Your task to perform on an android device: turn off notifications in google photos Image 0: 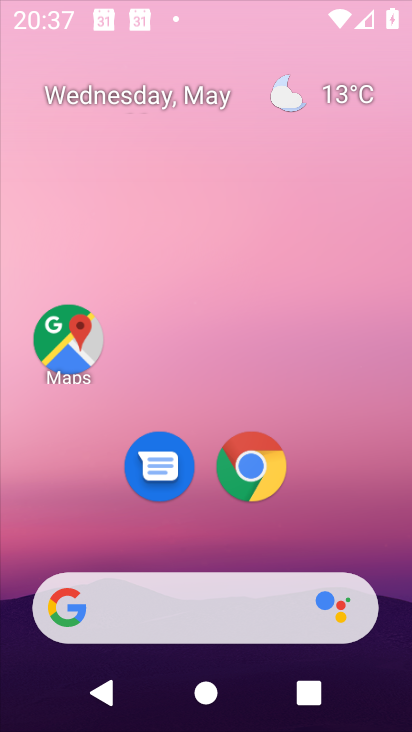
Step 0: drag from (209, 543) to (206, 55)
Your task to perform on an android device: turn off notifications in google photos Image 1: 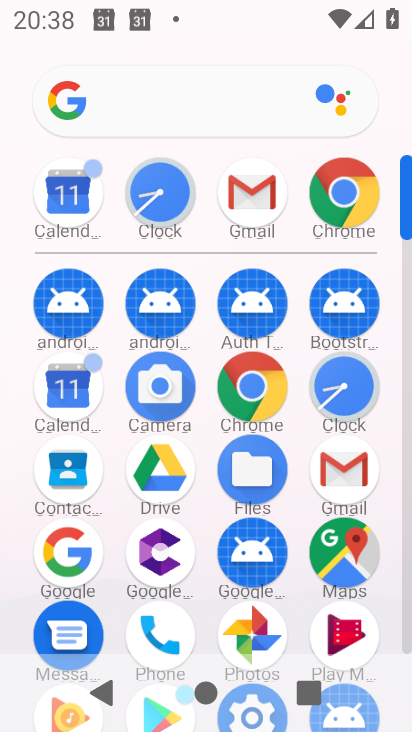
Step 1: click (247, 622)
Your task to perform on an android device: turn off notifications in google photos Image 2: 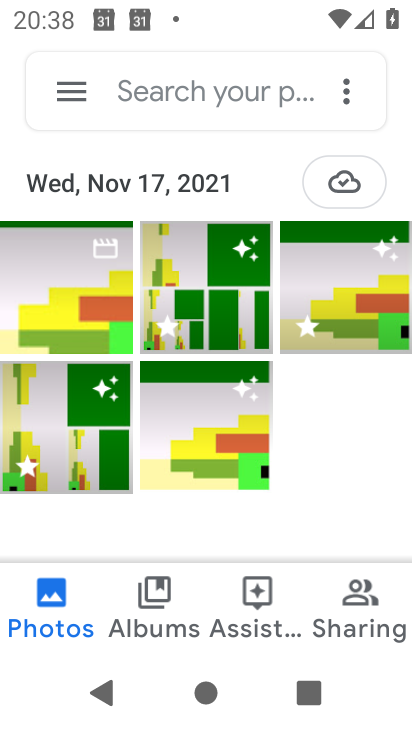
Step 2: click (73, 91)
Your task to perform on an android device: turn off notifications in google photos Image 3: 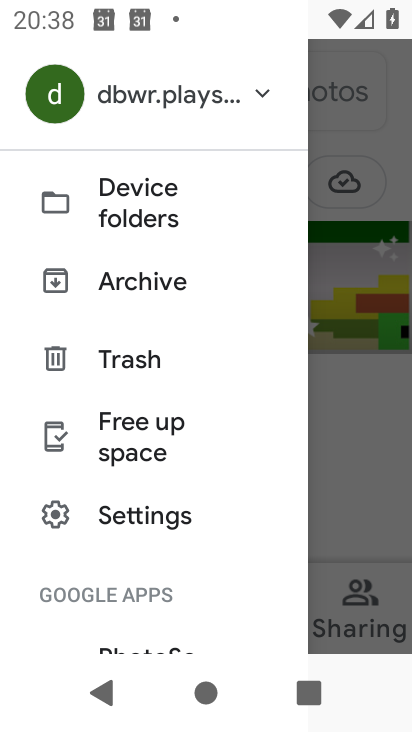
Step 3: click (137, 510)
Your task to perform on an android device: turn off notifications in google photos Image 4: 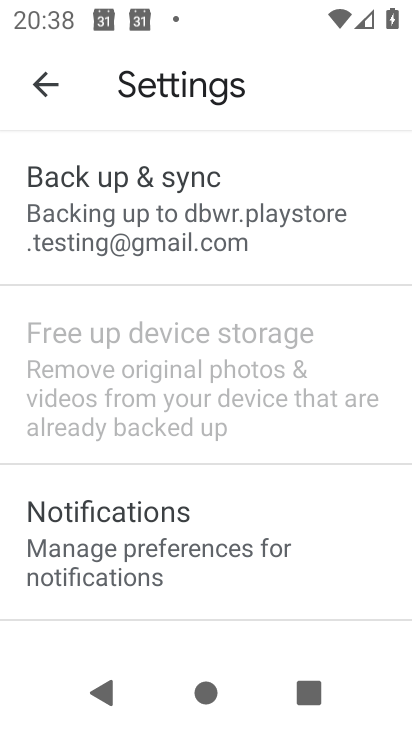
Step 4: click (168, 542)
Your task to perform on an android device: turn off notifications in google photos Image 5: 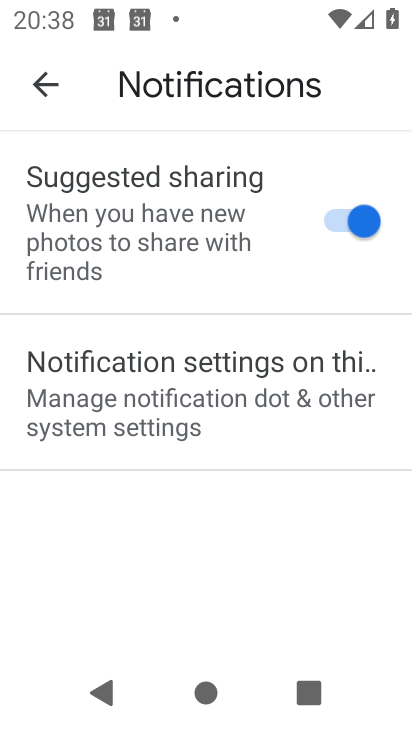
Step 5: click (216, 400)
Your task to perform on an android device: turn off notifications in google photos Image 6: 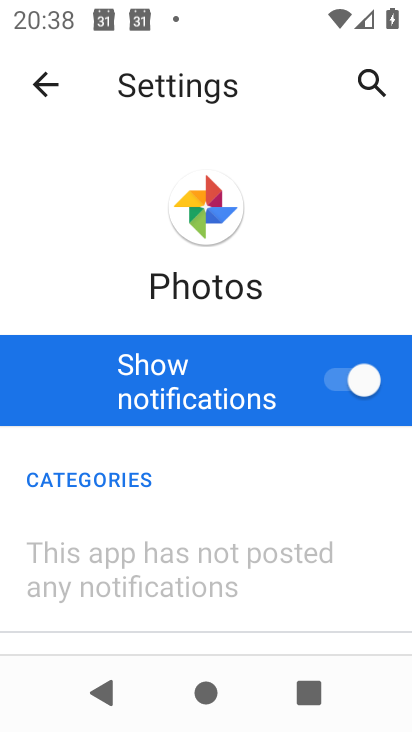
Step 6: click (339, 374)
Your task to perform on an android device: turn off notifications in google photos Image 7: 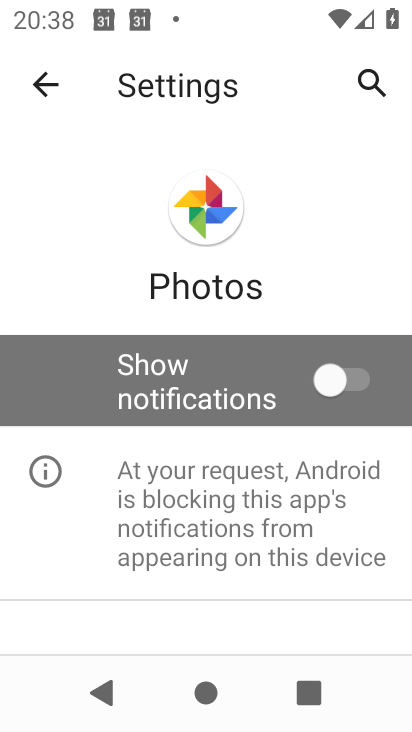
Step 7: task complete